Your task to perform on an android device: Go to internet settings Image 0: 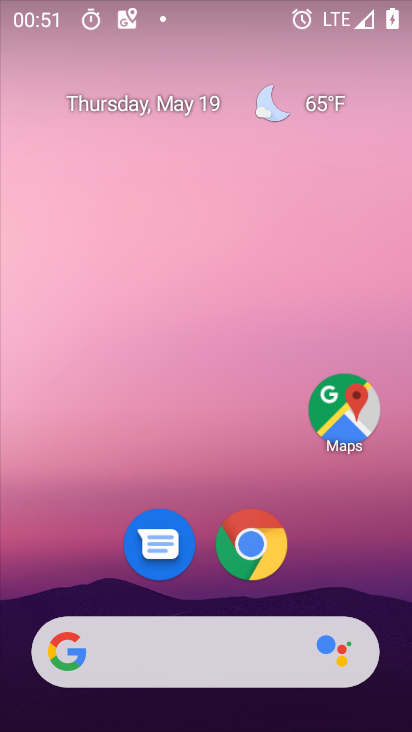
Step 0: drag from (362, 557) to (338, 60)
Your task to perform on an android device: Go to internet settings Image 1: 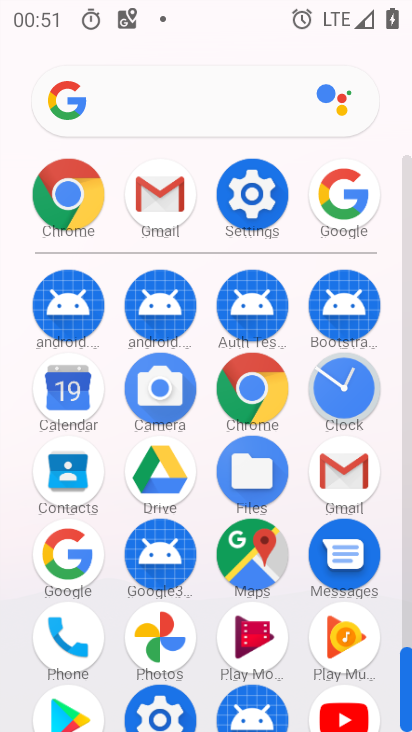
Step 1: click (248, 190)
Your task to perform on an android device: Go to internet settings Image 2: 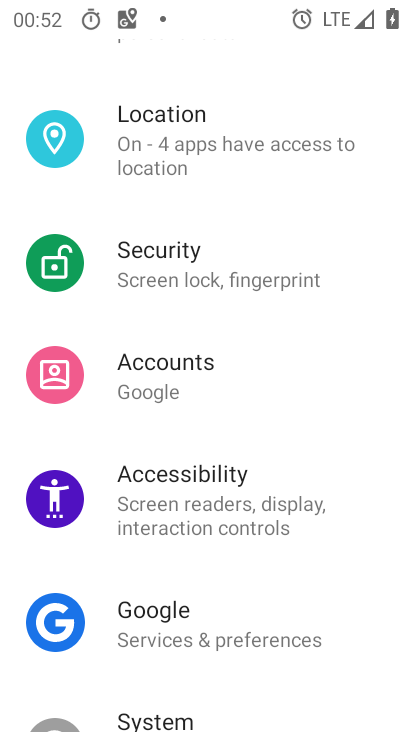
Step 2: drag from (350, 632) to (350, 452)
Your task to perform on an android device: Go to internet settings Image 3: 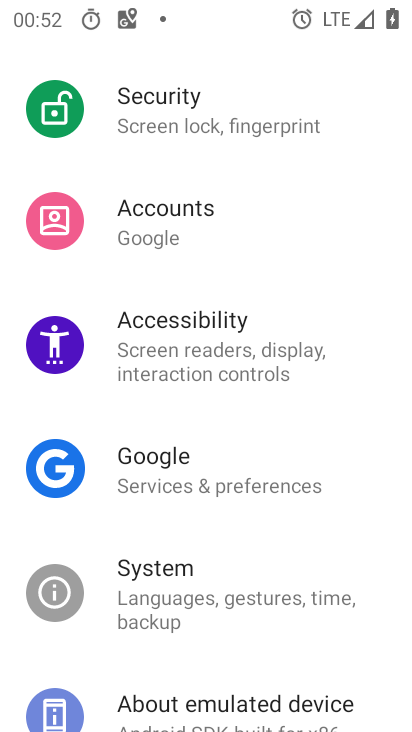
Step 3: drag from (348, 635) to (354, 392)
Your task to perform on an android device: Go to internet settings Image 4: 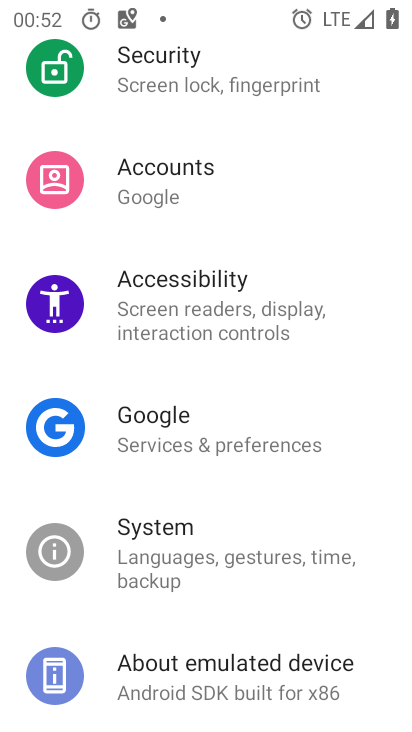
Step 4: drag from (342, 634) to (343, 423)
Your task to perform on an android device: Go to internet settings Image 5: 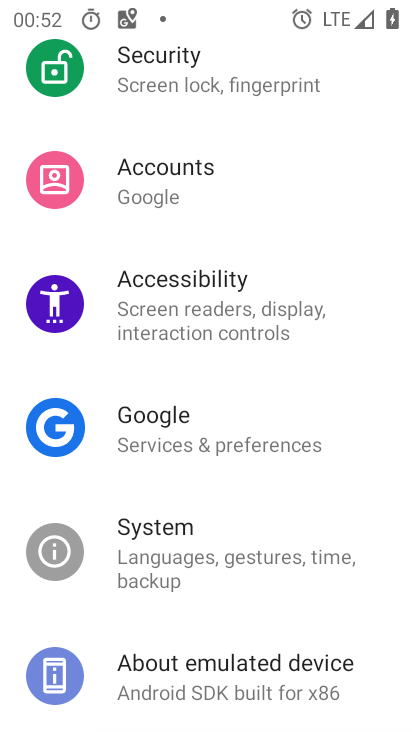
Step 5: drag from (347, 303) to (345, 493)
Your task to perform on an android device: Go to internet settings Image 6: 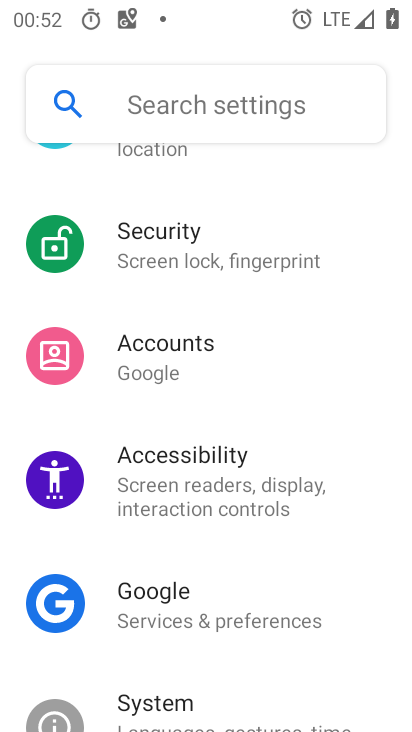
Step 6: drag from (345, 319) to (351, 548)
Your task to perform on an android device: Go to internet settings Image 7: 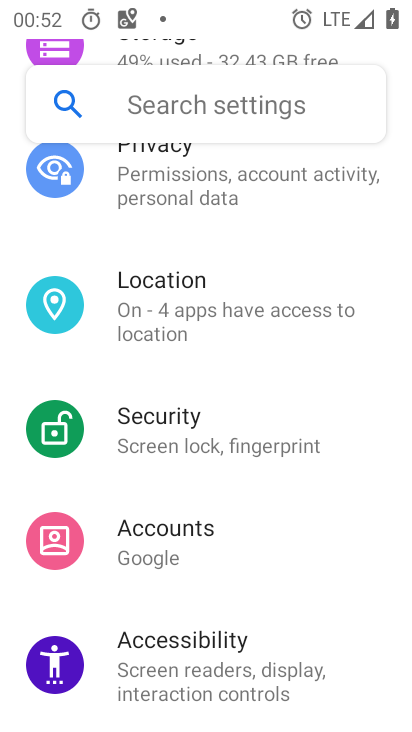
Step 7: drag from (365, 259) to (346, 464)
Your task to perform on an android device: Go to internet settings Image 8: 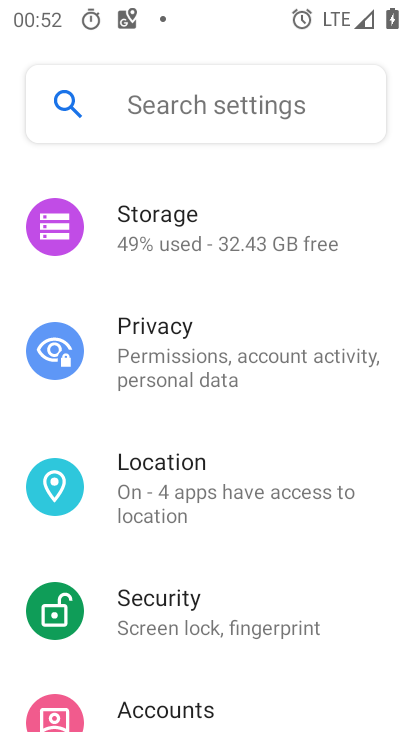
Step 8: drag from (352, 282) to (352, 427)
Your task to perform on an android device: Go to internet settings Image 9: 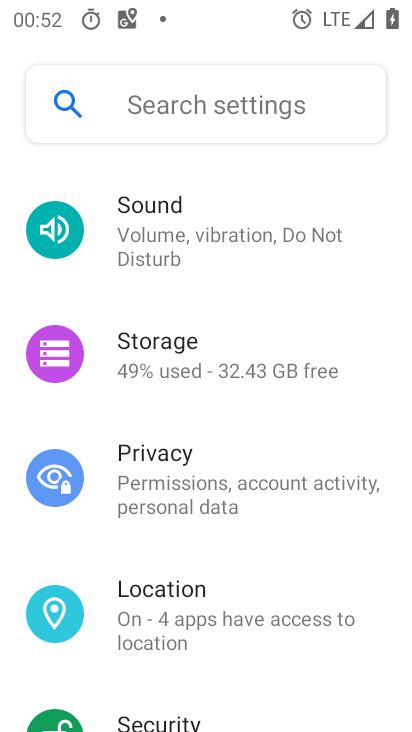
Step 9: drag from (352, 287) to (335, 447)
Your task to perform on an android device: Go to internet settings Image 10: 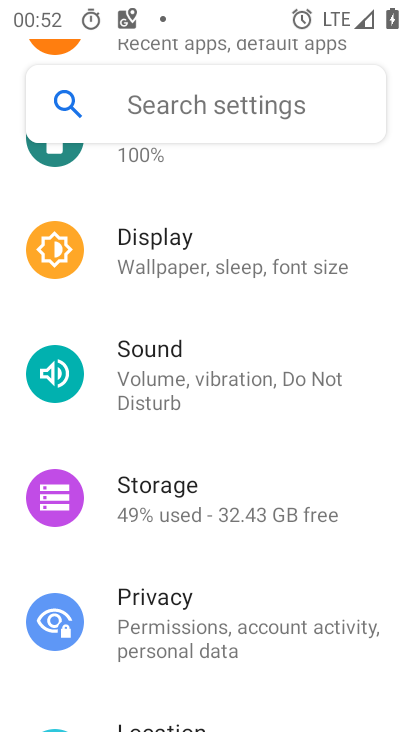
Step 10: drag from (346, 288) to (344, 448)
Your task to perform on an android device: Go to internet settings Image 11: 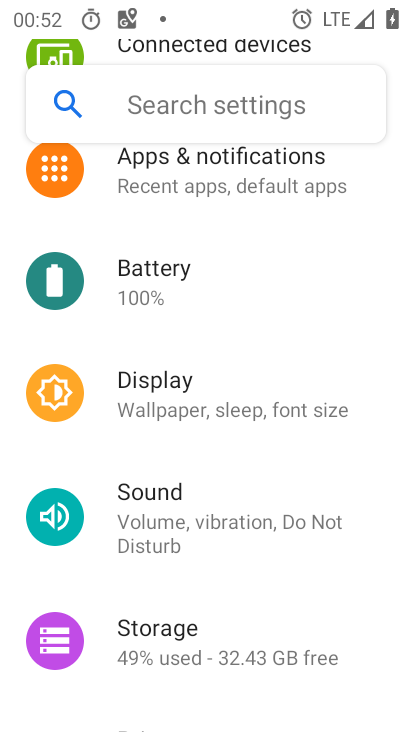
Step 11: drag from (339, 270) to (329, 384)
Your task to perform on an android device: Go to internet settings Image 12: 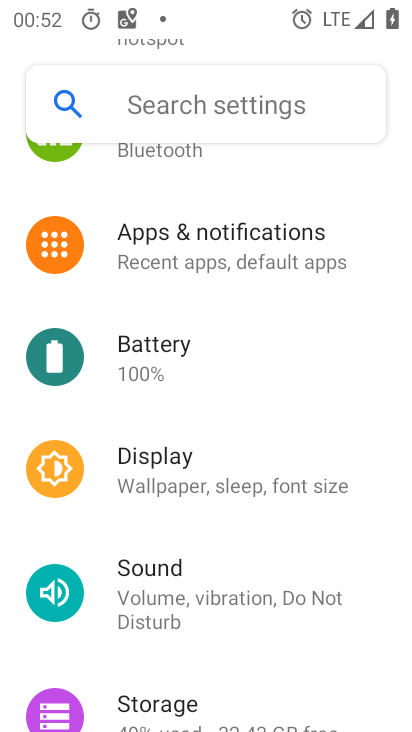
Step 12: drag from (349, 210) to (328, 383)
Your task to perform on an android device: Go to internet settings Image 13: 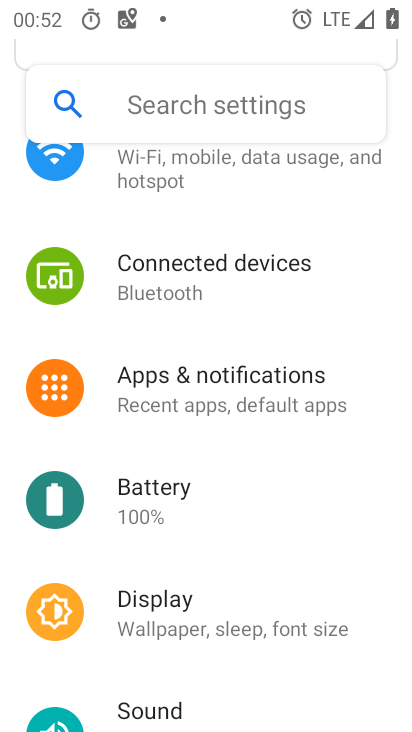
Step 13: drag from (339, 268) to (335, 407)
Your task to perform on an android device: Go to internet settings Image 14: 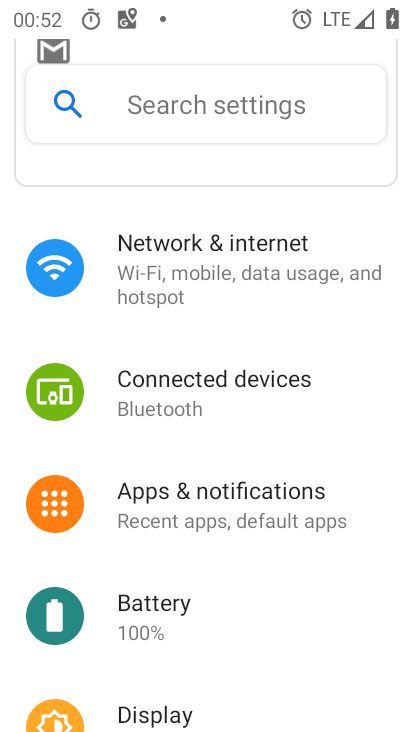
Step 14: drag from (342, 236) to (338, 367)
Your task to perform on an android device: Go to internet settings Image 15: 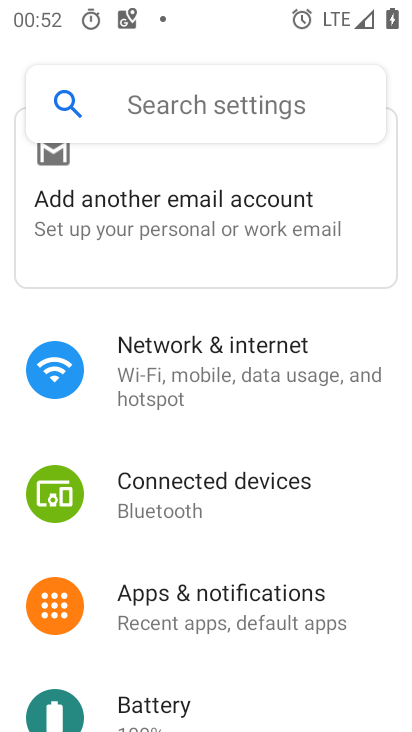
Step 15: click (299, 376)
Your task to perform on an android device: Go to internet settings Image 16: 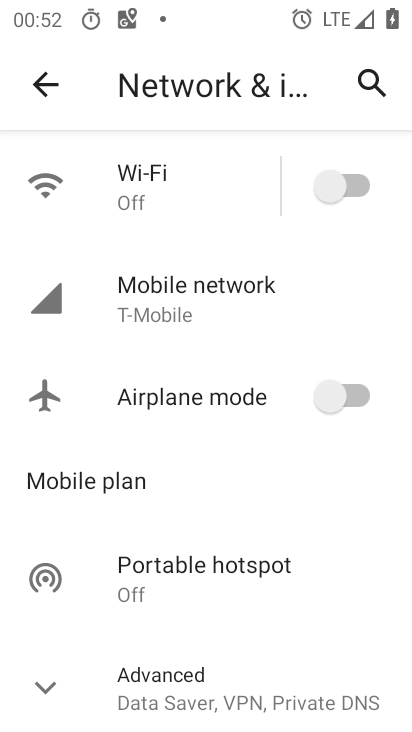
Step 16: task complete